Your task to perform on an android device: all mails in gmail Image 0: 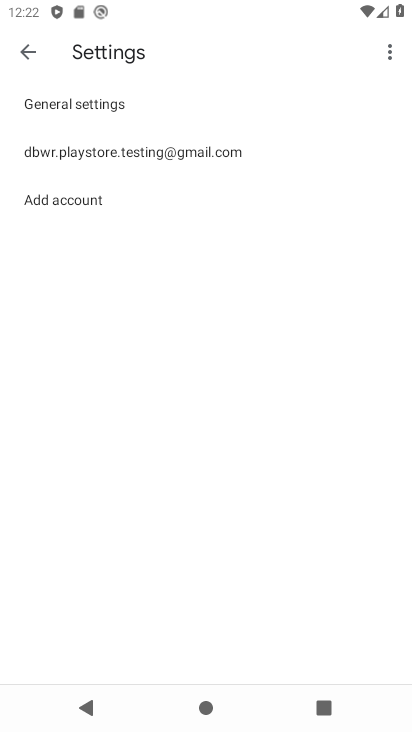
Step 0: press home button
Your task to perform on an android device: all mails in gmail Image 1: 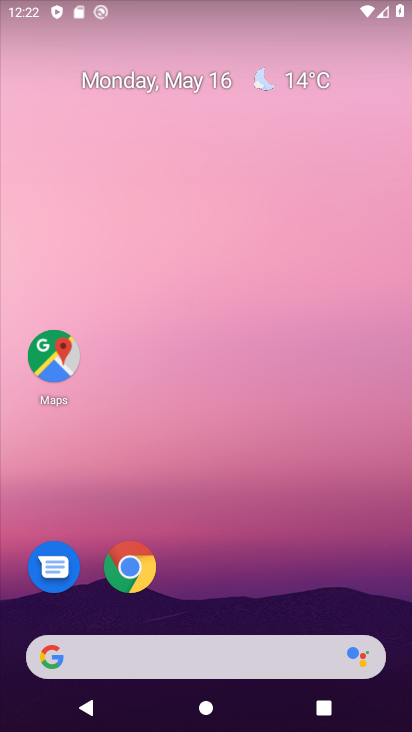
Step 1: drag from (251, 526) to (179, 105)
Your task to perform on an android device: all mails in gmail Image 2: 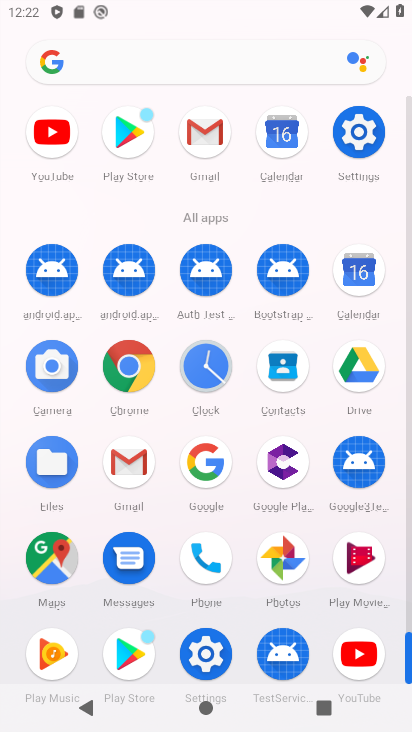
Step 2: click (195, 140)
Your task to perform on an android device: all mails in gmail Image 3: 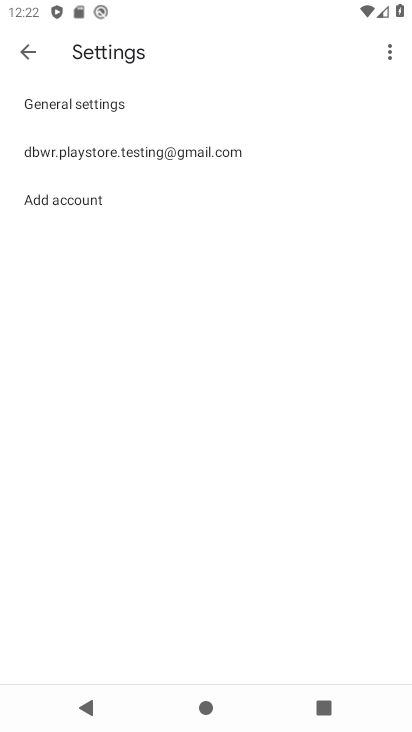
Step 3: click (25, 54)
Your task to perform on an android device: all mails in gmail Image 4: 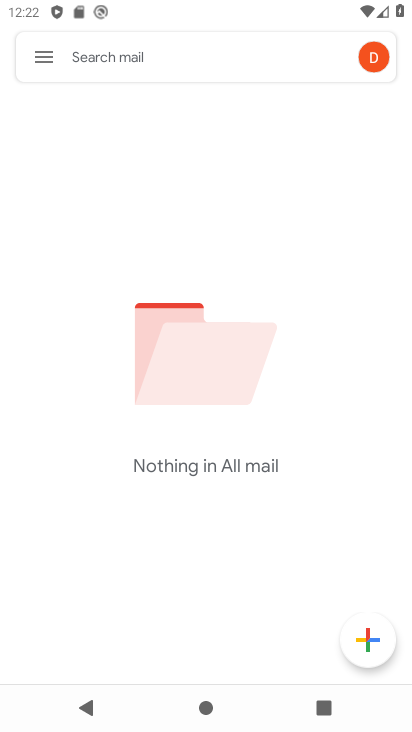
Step 4: click (41, 56)
Your task to perform on an android device: all mails in gmail Image 5: 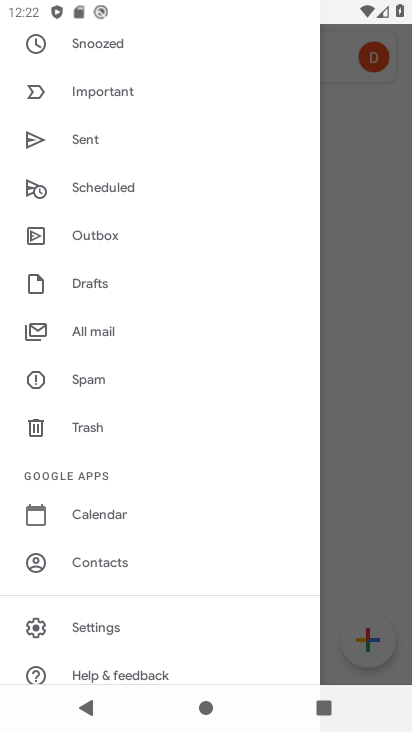
Step 5: click (92, 322)
Your task to perform on an android device: all mails in gmail Image 6: 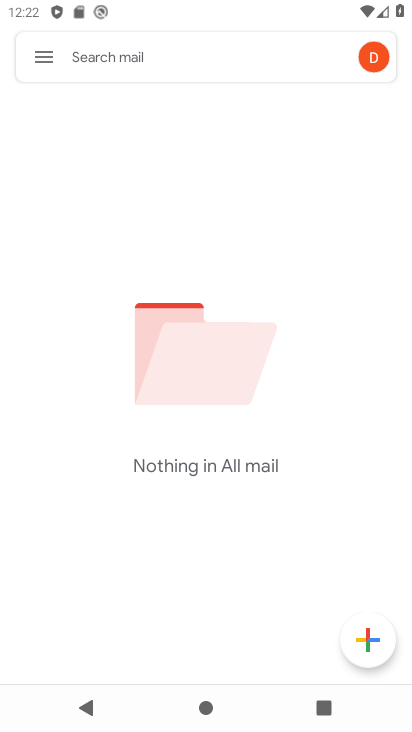
Step 6: task complete